Your task to perform on an android device: open app "Google Chrome" Image 0: 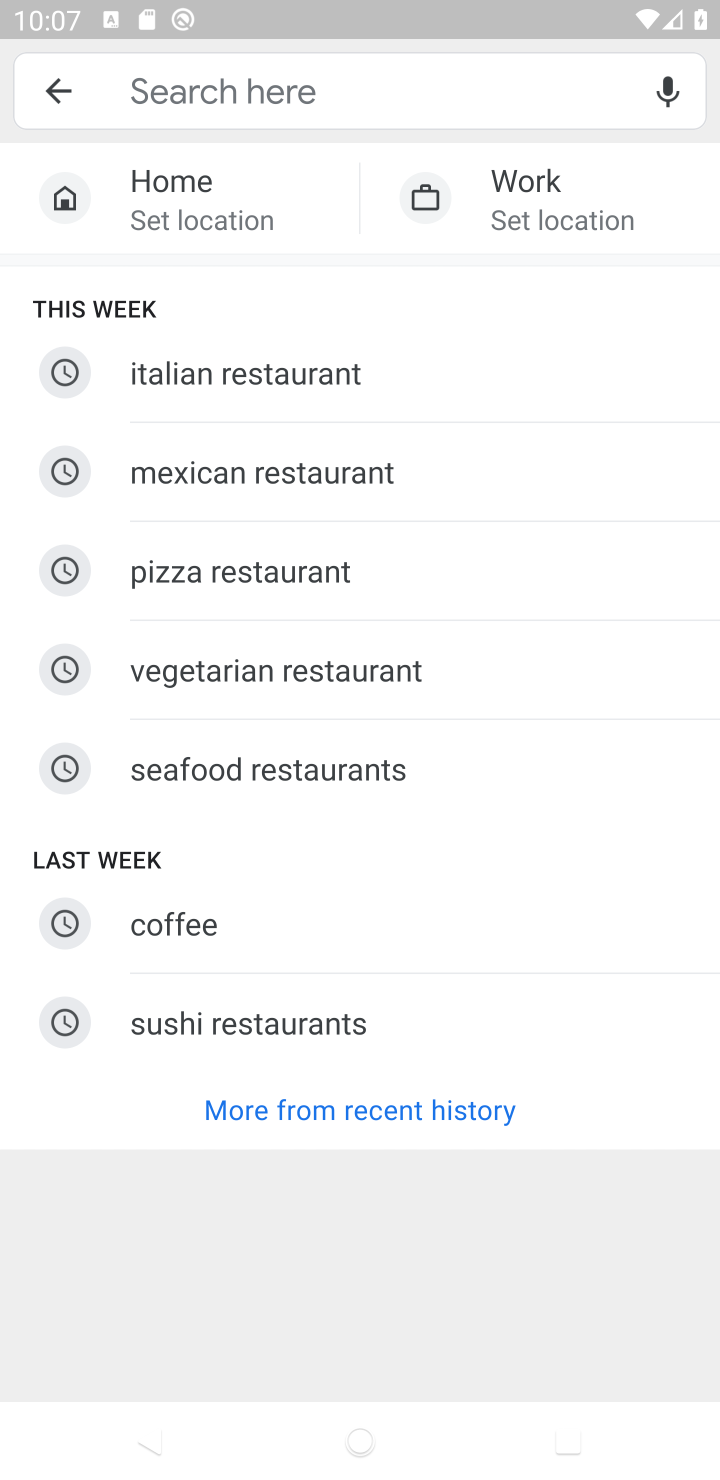
Step 0: press back button
Your task to perform on an android device: open app "Google Chrome" Image 1: 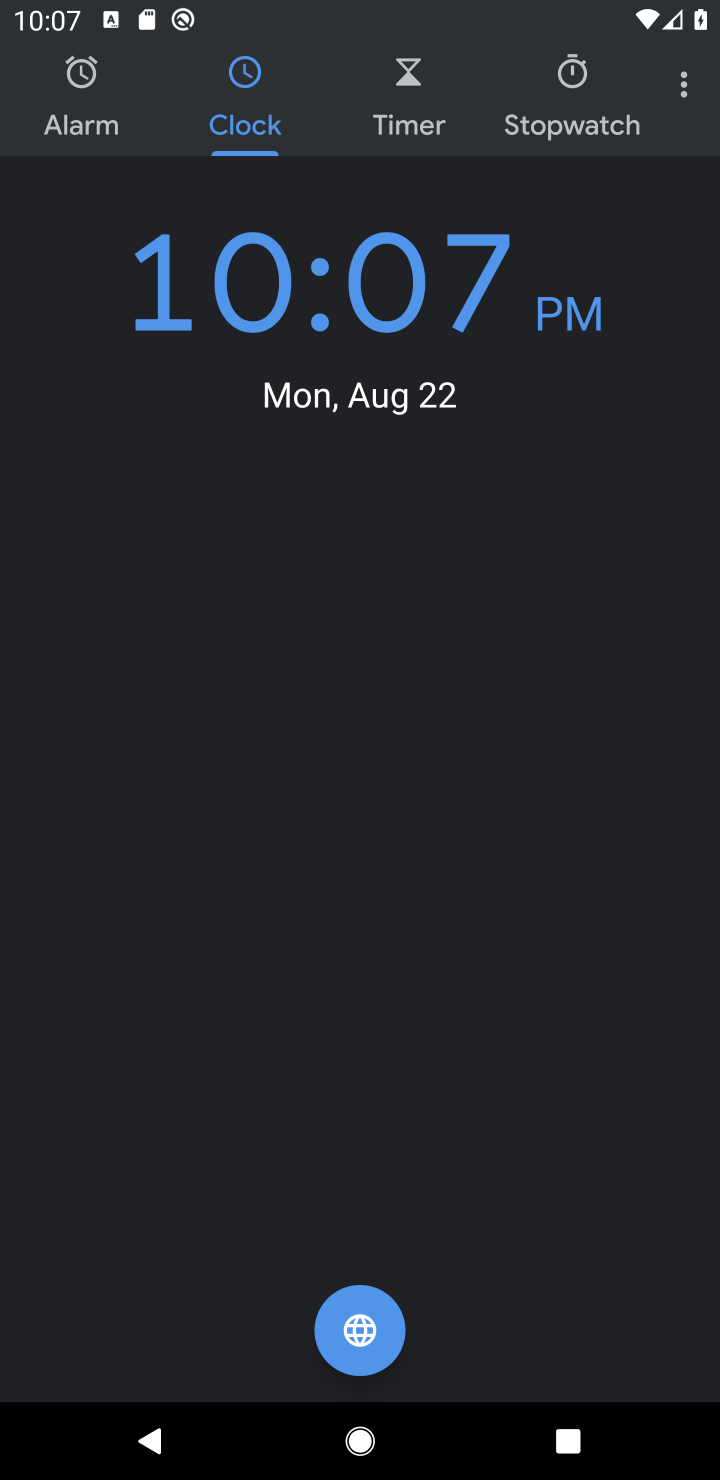
Step 1: press back button
Your task to perform on an android device: open app "Google Chrome" Image 2: 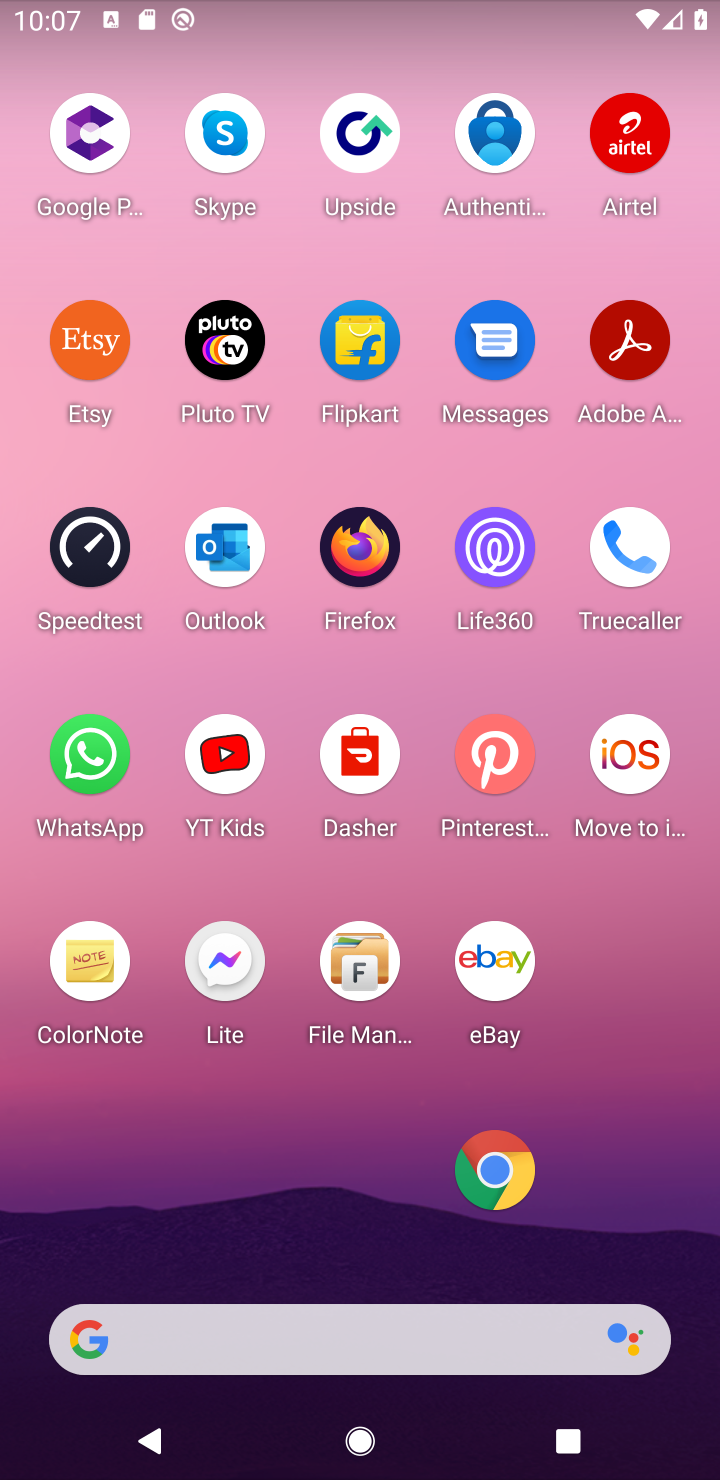
Step 2: press back button
Your task to perform on an android device: open app "Google Chrome" Image 3: 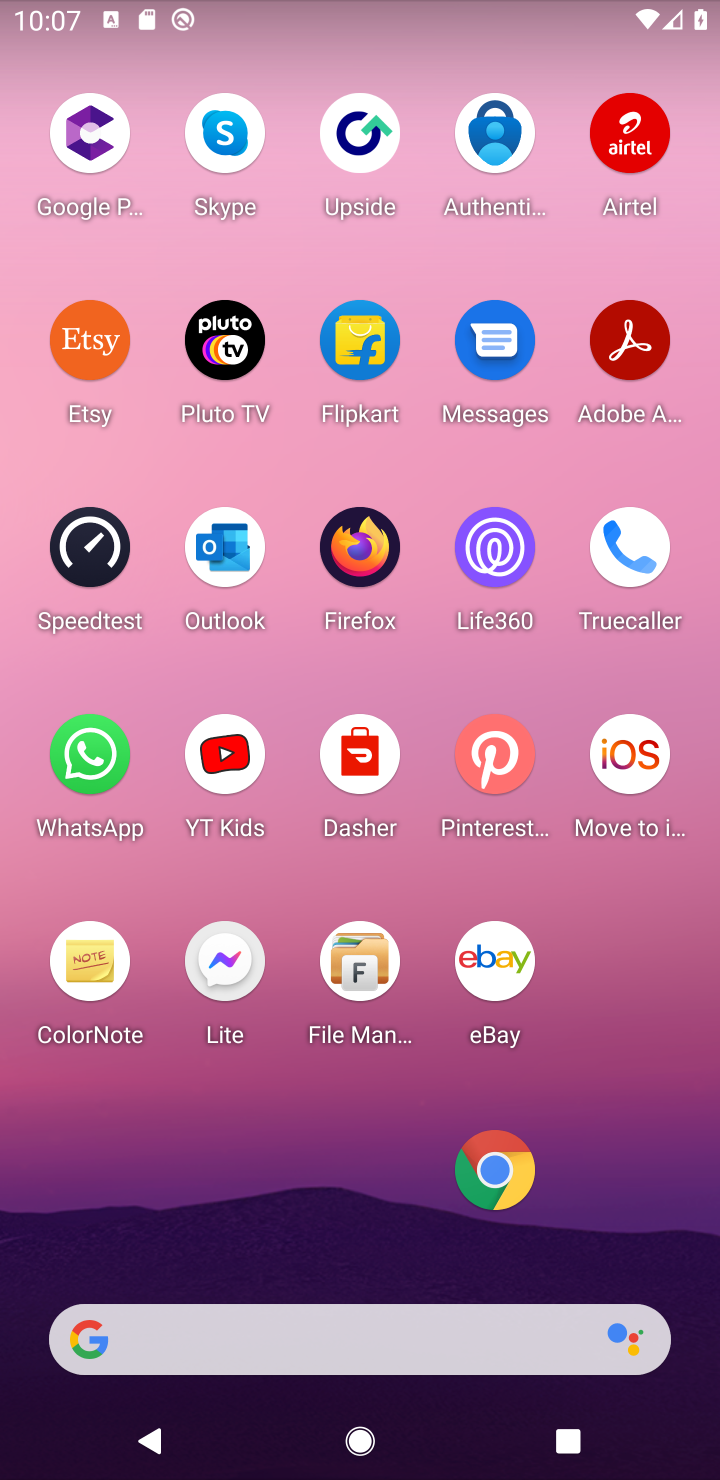
Step 3: drag from (381, 928) to (480, 41)
Your task to perform on an android device: open app "Google Chrome" Image 4: 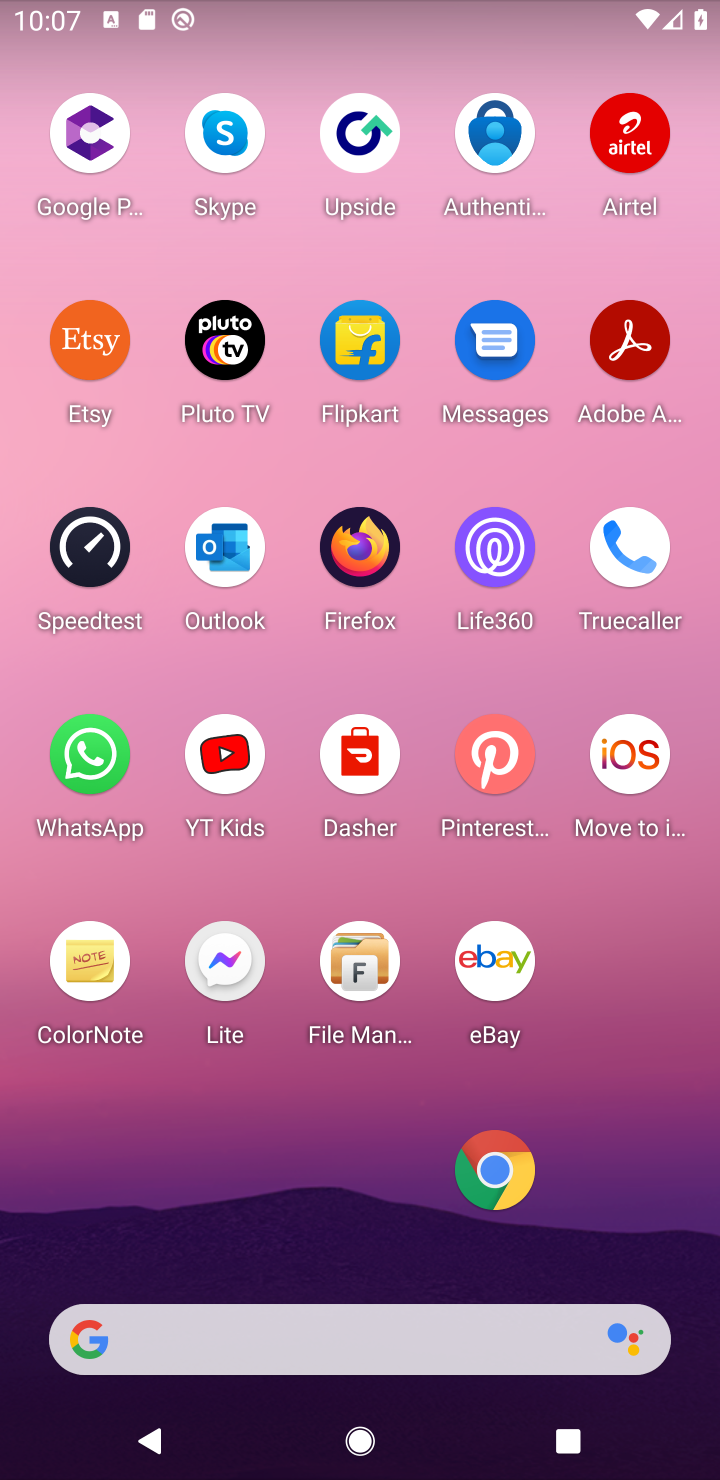
Step 4: drag from (300, 1252) to (363, 254)
Your task to perform on an android device: open app "Google Chrome" Image 5: 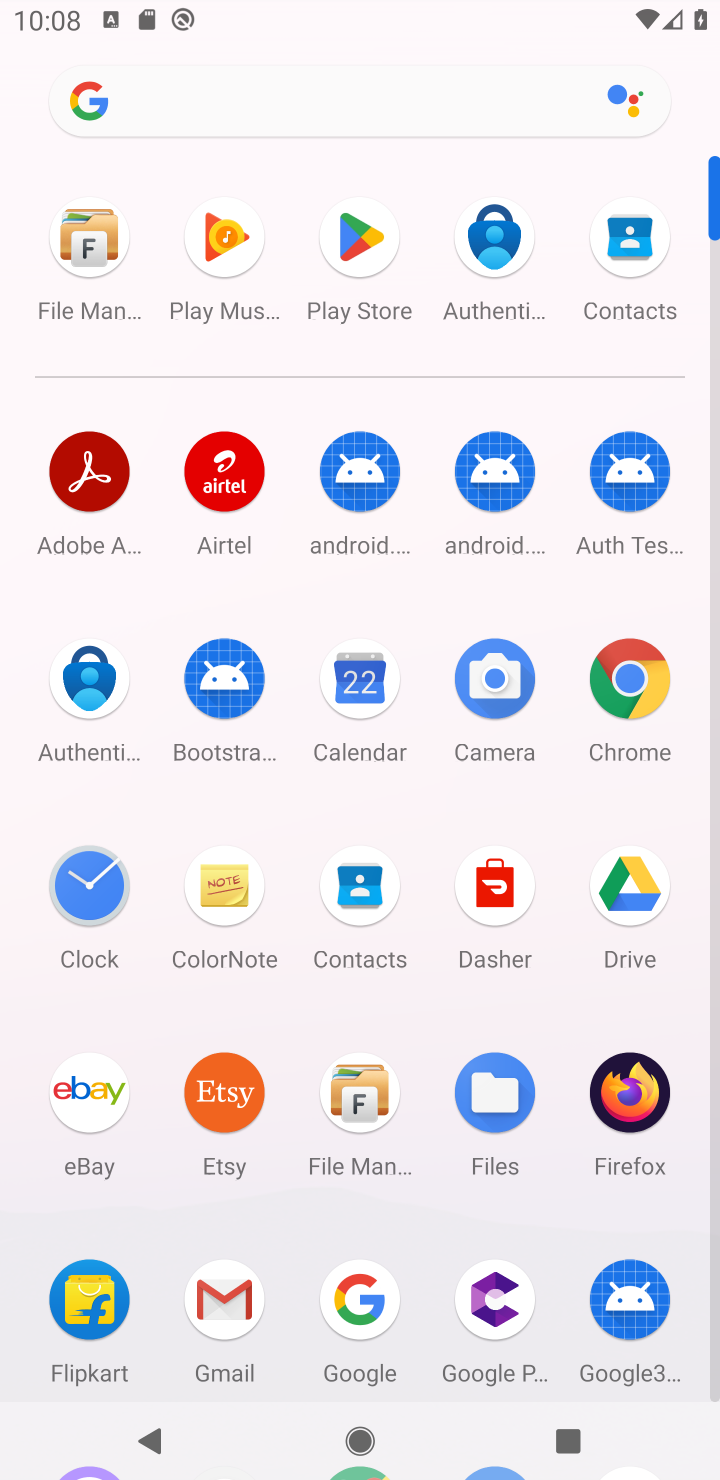
Step 5: click (363, 233)
Your task to perform on an android device: open app "Google Chrome" Image 6: 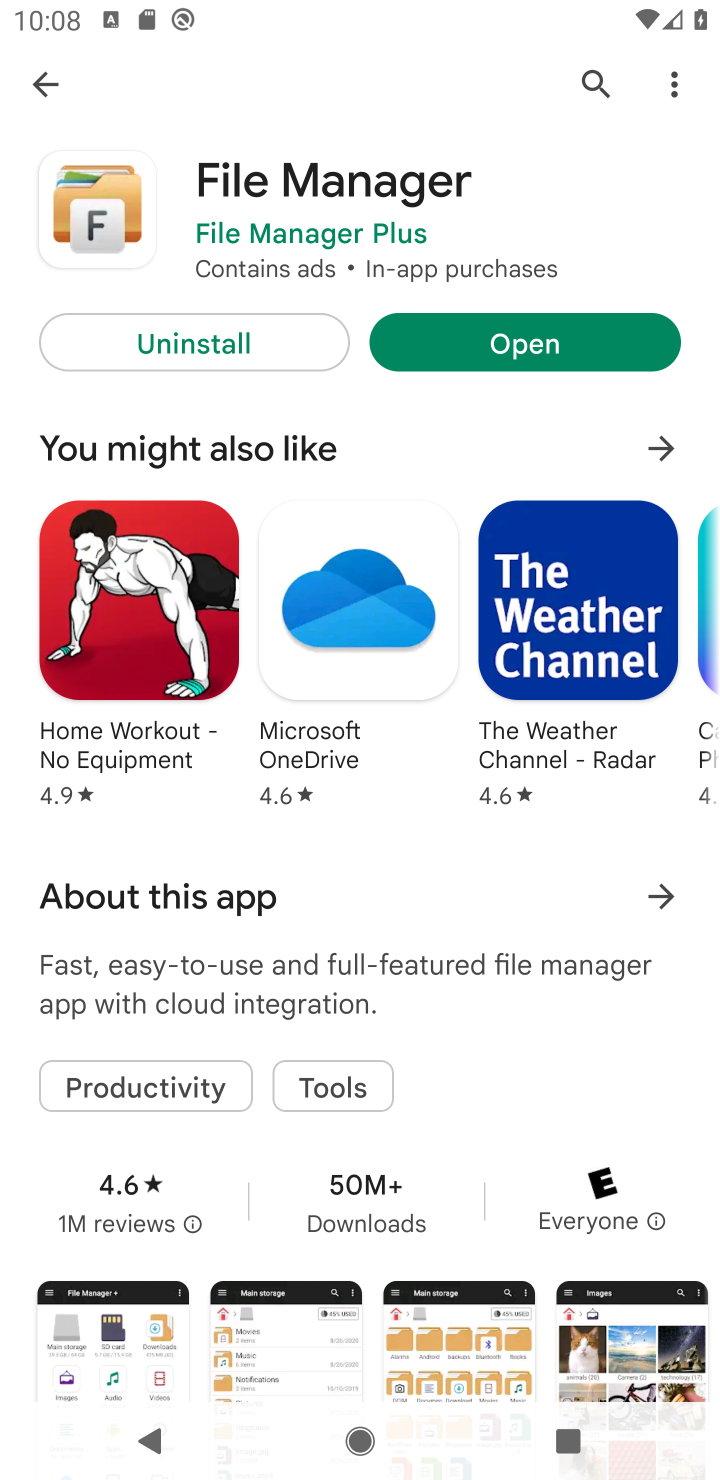
Step 6: click (591, 82)
Your task to perform on an android device: open app "Google Chrome" Image 7: 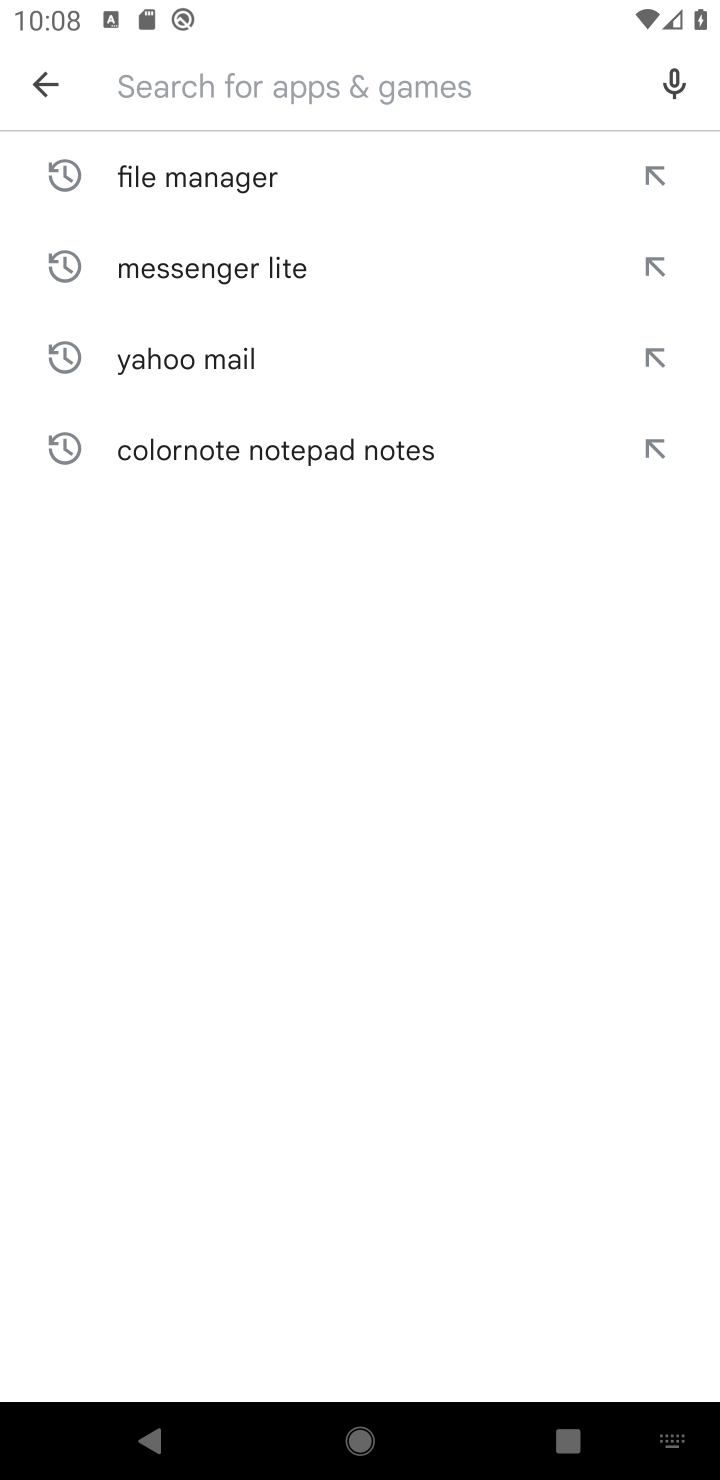
Step 7: click (239, 87)
Your task to perform on an android device: open app "Google Chrome" Image 8: 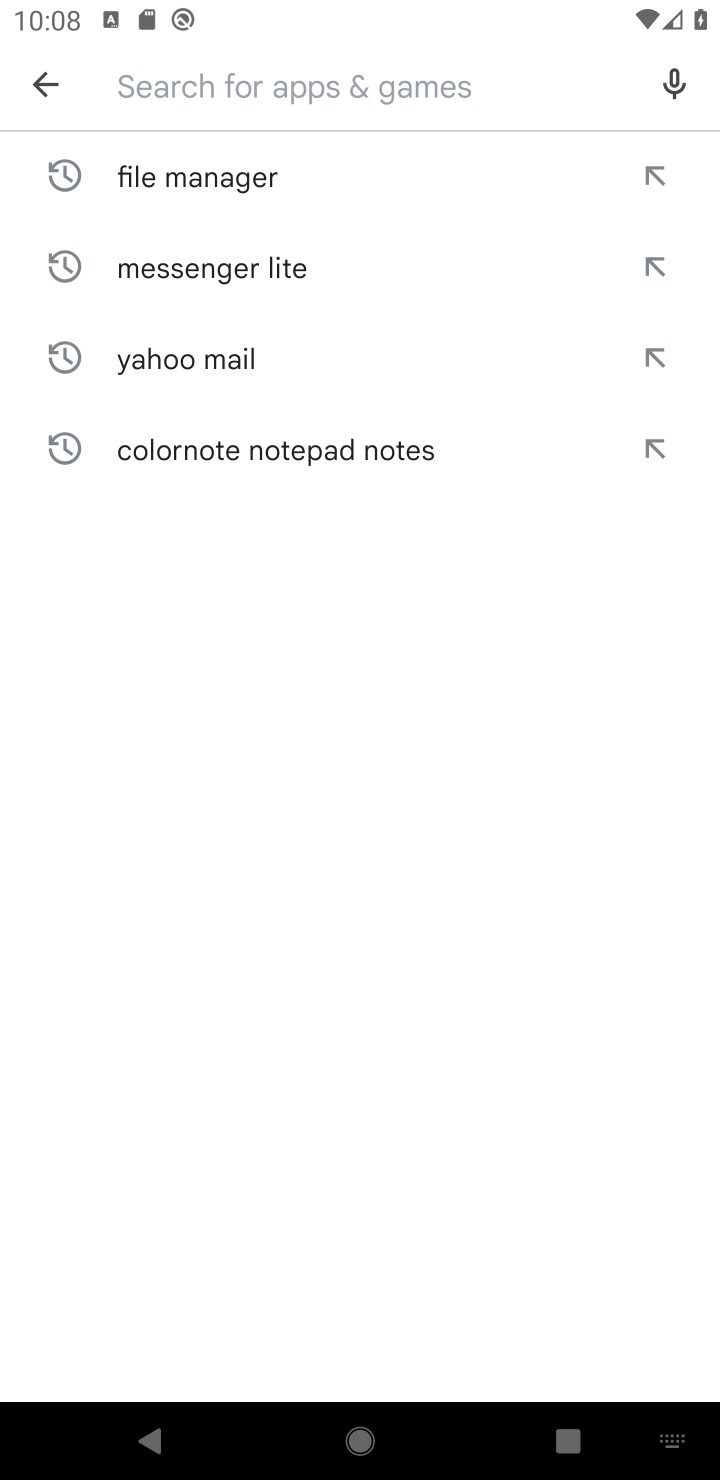
Step 8: type "Google Chrome"
Your task to perform on an android device: open app "Google Chrome" Image 9: 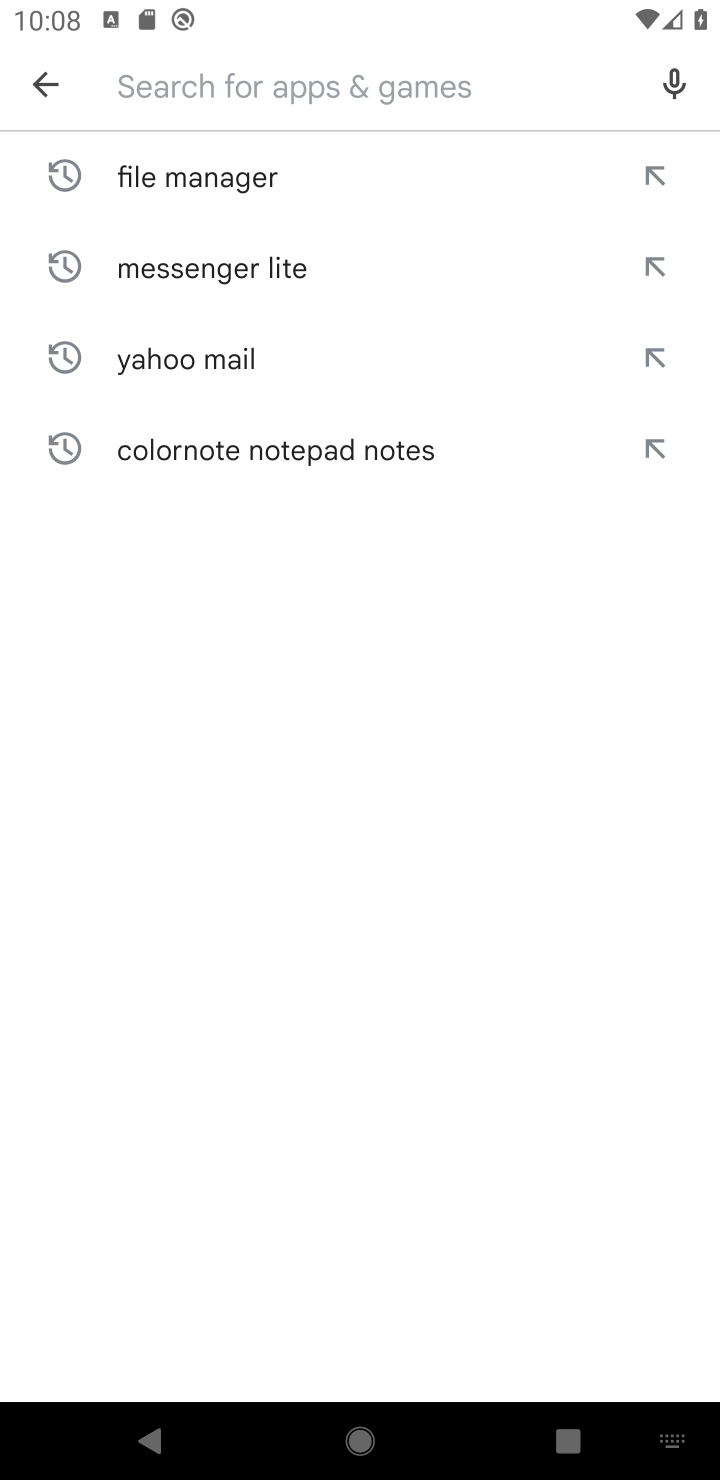
Step 9: click (402, 984)
Your task to perform on an android device: open app "Google Chrome" Image 10: 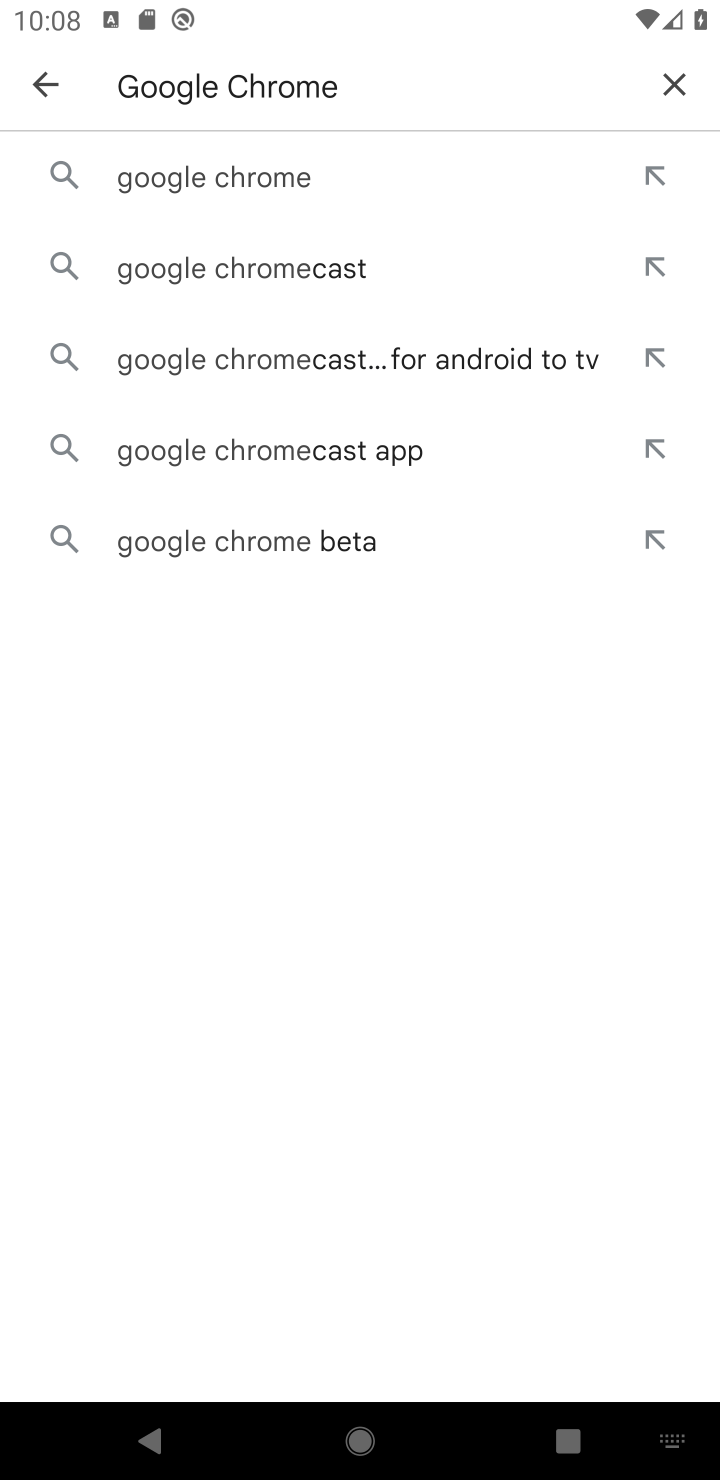
Step 10: click (219, 174)
Your task to perform on an android device: open app "Google Chrome" Image 11: 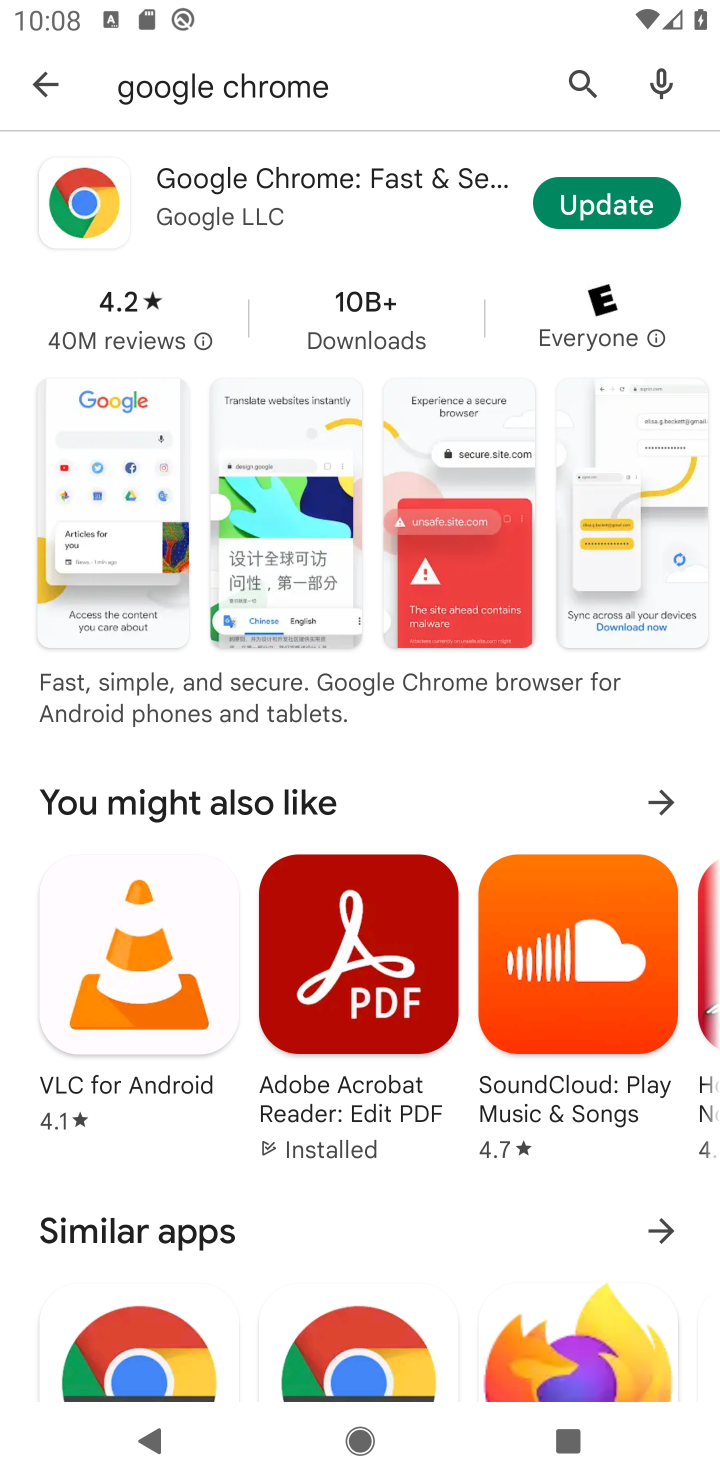
Step 11: click (352, 183)
Your task to perform on an android device: open app "Google Chrome" Image 12: 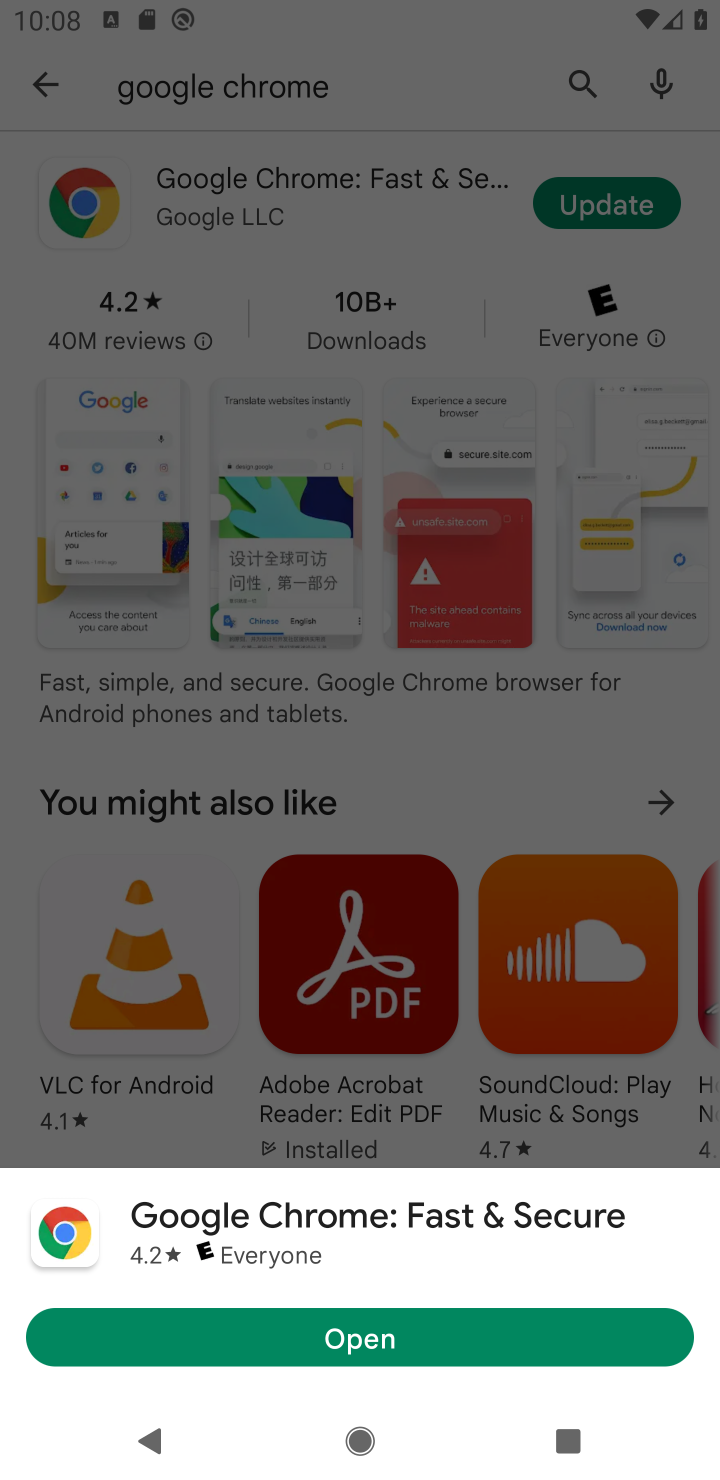
Step 12: click (321, 1331)
Your task to perform on an android device: open app "Google Chrome" Image 13: 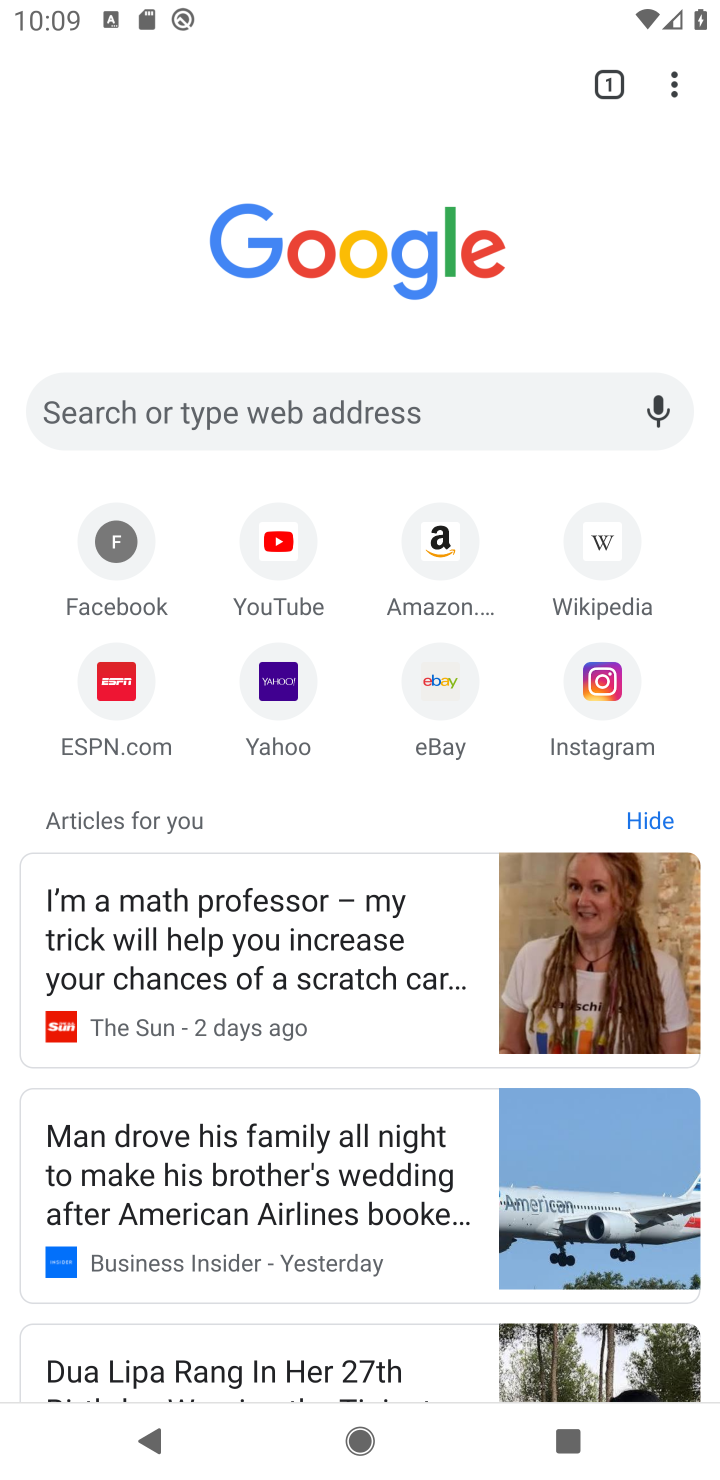
Step 13: task complete